Your task to perform on an android device: Show me productivity apps on the Play Store Image 0: 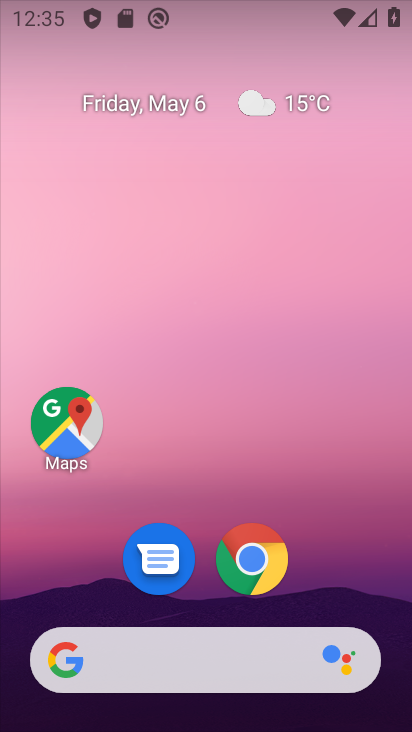
Step 0: drag from (203, 525) to (247, 4)
Your task to perform on an android device: Show me productivity apps on the Play Store Image 1: 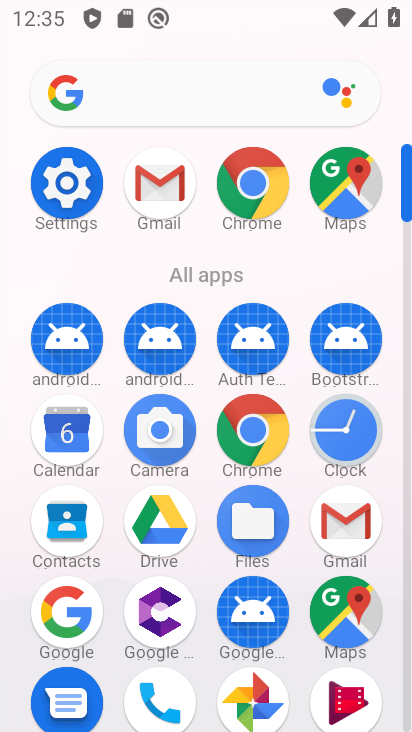
Step 1: drag from (202, 573) to (229, 208)
Your task to perform on an android device: Show me productivity apps on the Play Store Image 2: 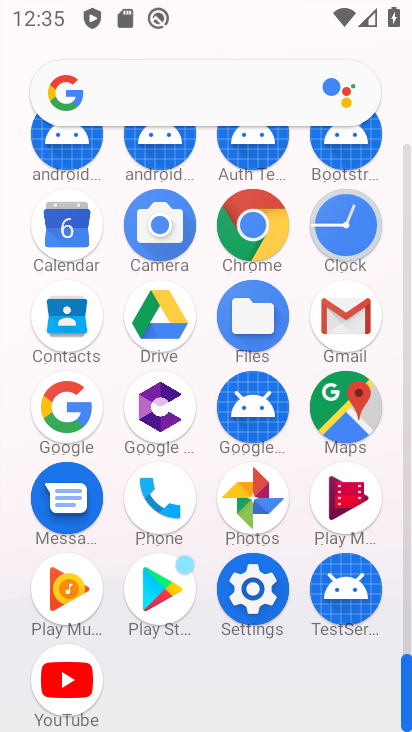
Step 2: click (168, 590)
Your task to perform on an android device: Show me productivity apps on the Play Store Image 3: 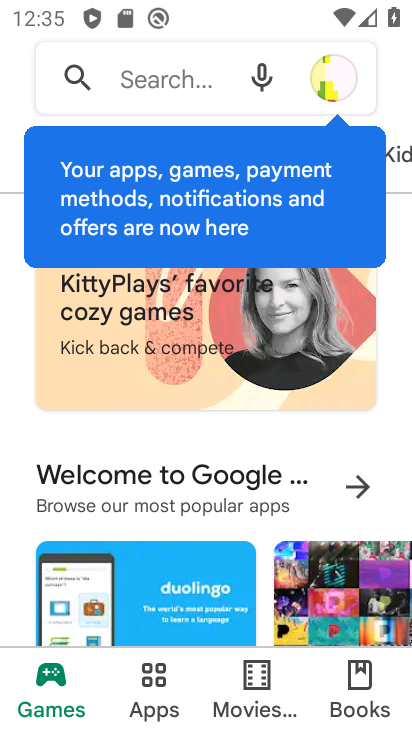
Step 3: click (388, 92)
Your task to perform on an android device: Show me productivity apps on the Play Store Image 4: 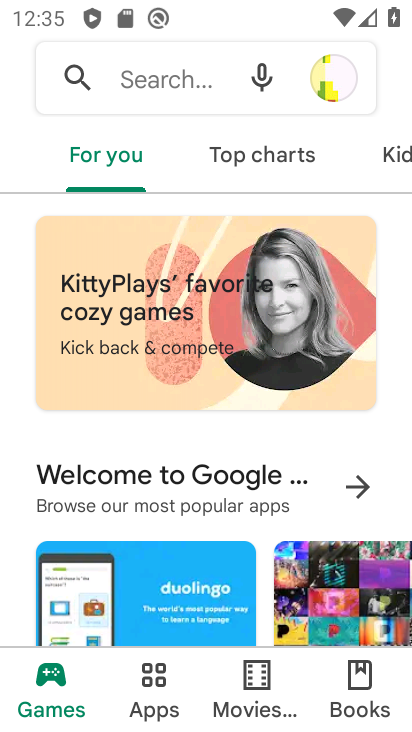
Step 4: drag from (357, 154) to (28, 154)
Your task to perform on an android device: Show me productivity apps on the Play Store Image 5: 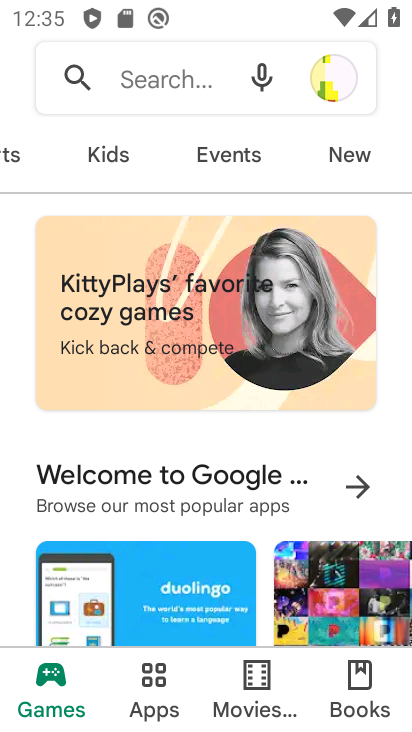
Step 5: click (152, 698)
Your task to perform on an android device: Show me productivity apps on the Play Store Image 6: 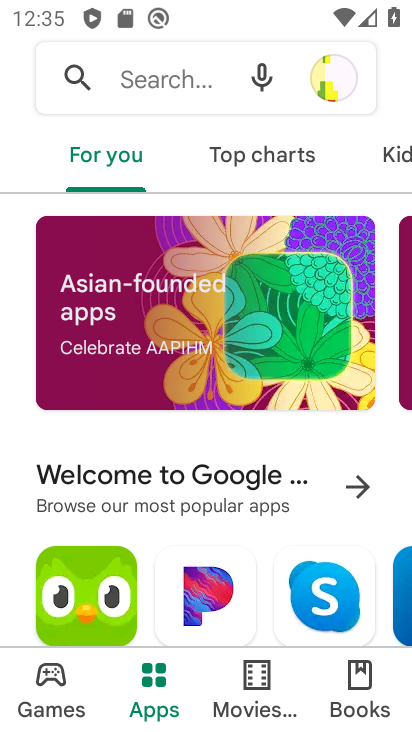
Step 6: drag from (270, 161) to (77, 169)
Your task to perform on an android device: Show me productivity apps on the Play Store Image 7: 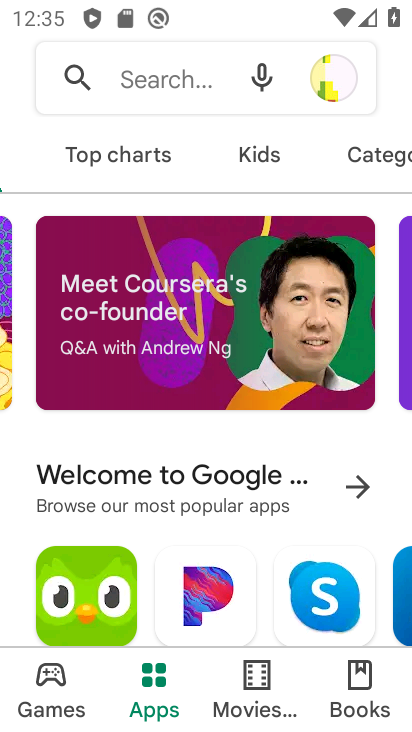
Step 7: click (364, 155)
Your task to perform on an android device: Show me productivity apps on the Play Store Image 8: 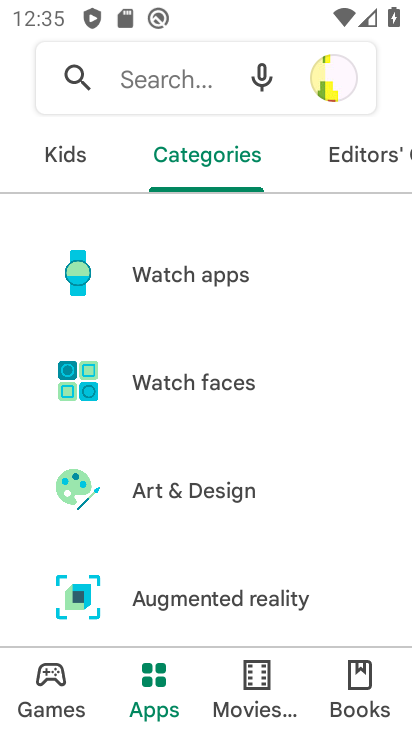
Step 8: drag from (201, 619) to (236, 187)
Your task to perform on an android device: Show me productivity apps on the Play Store Image 9: 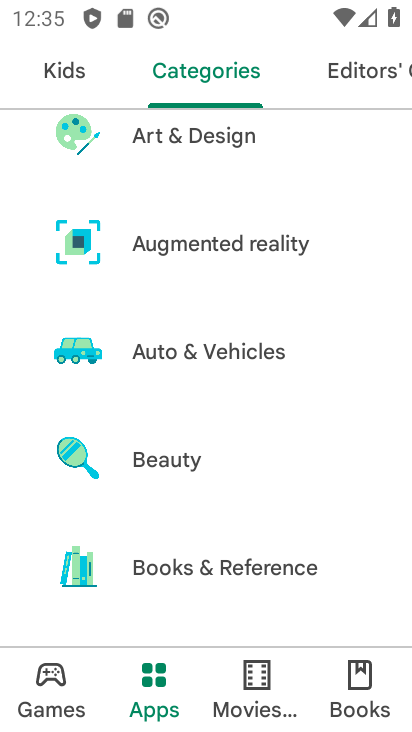
Step 9: drag from (180, 517) to (236, 80)
Your task to perform on an android device: Show me productivity apps on the Play Store Image 10: 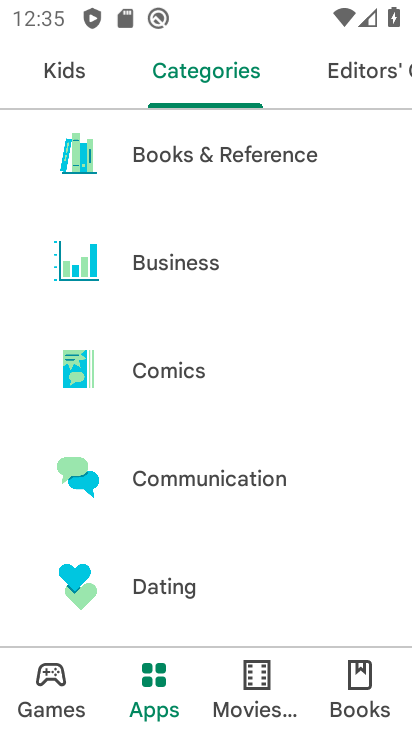
Step 10: drag from (158, 548) to (208, 171)
Your task to perform on an android device: Show me productivity apps on the Play Store Image 11: 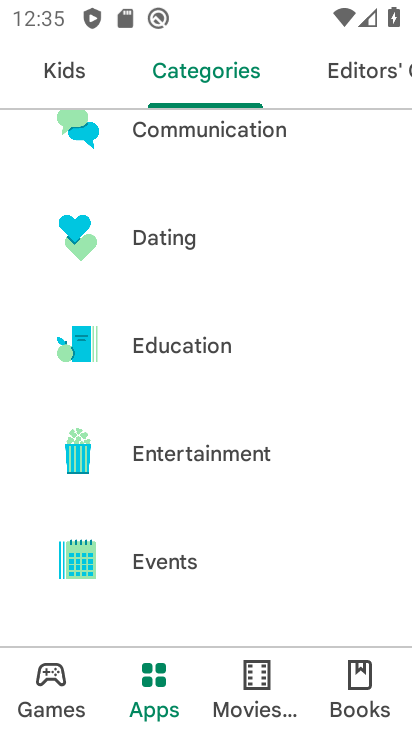
Step 11: drag from (177, 610) to (223, 57)
Your task to perform on an android device: Show me productivity apps on the Play Store Image 12: 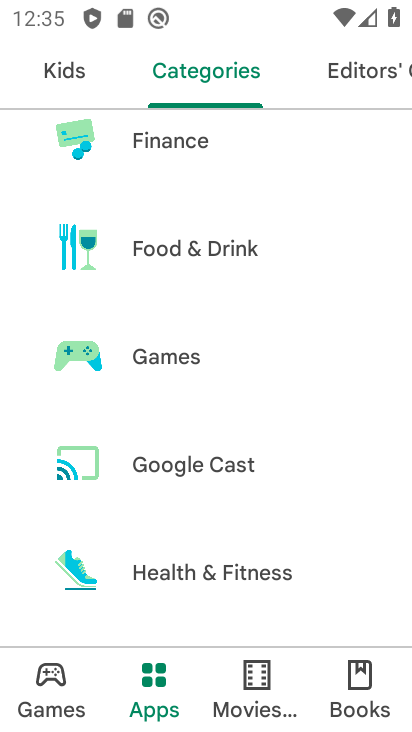
Step 12: drag from (159, 526) to (203, 115)
Your task to perform on an android device: Show me productivity apps on the Play Store Image 13: 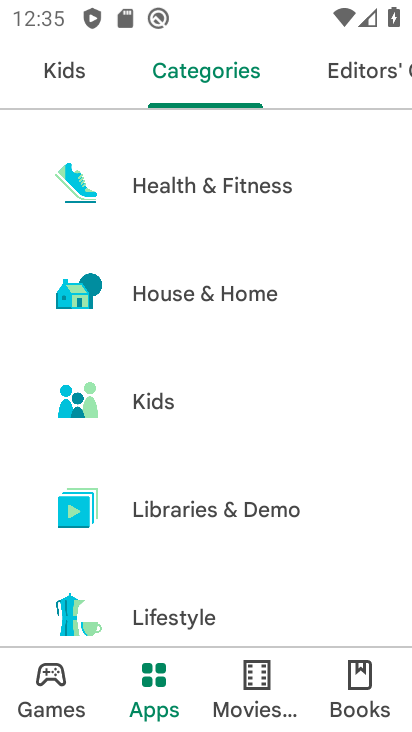
Step 13: drag from (171, 571) to (231, 137)
Your task to perform on an android device: Show me productivity apps on the Play Store Image 14: 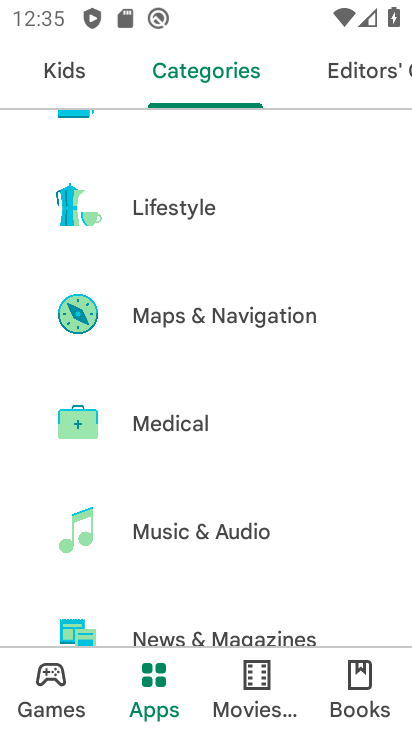
Step 14: drag from (174, 544) to (236, 129)
Your task to perform on an android device: Show me productivity apps on the Play Store Image 15: 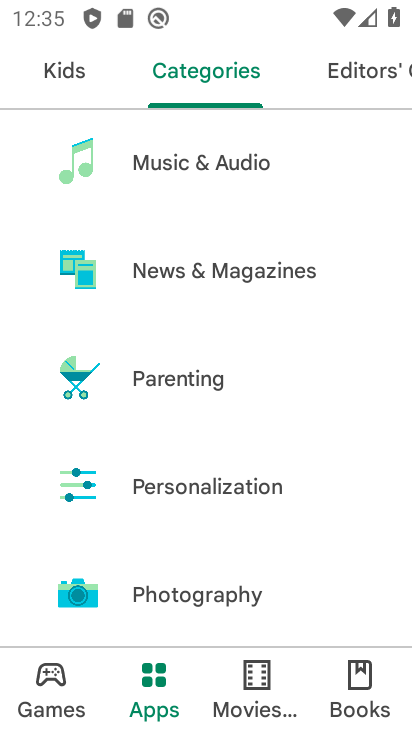
Step 15: drag from (175, 540) to (223, 154)
Your task to perform on an android device: Show me productivity apps on the Play Store Image 16: 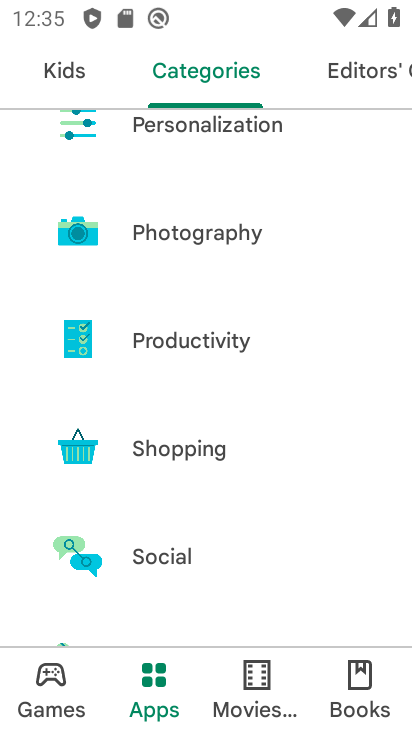
Step 16: click (182, 331)
Your task to perform on an android device: Show me productivity apps on the Play Store Image 17: 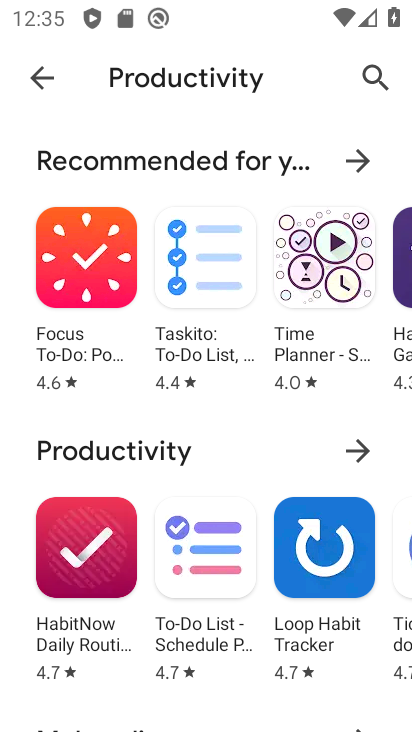
Step 17: task complete